Your task to perform on an android device: Go to notification settings Image 0: 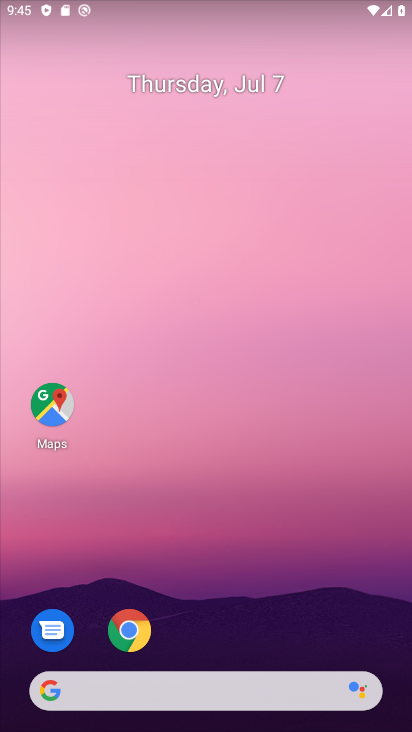
Step 0: press home button
Your task to perform on an android device: Go to notification settings Image 1: 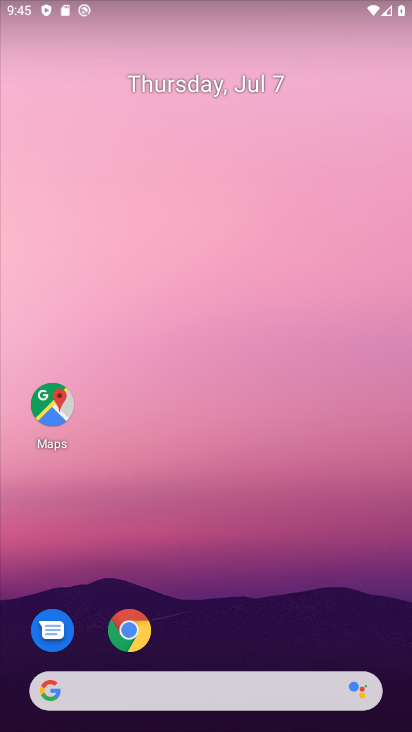
Step 1: drag from (205, 649) to (215, 57)
Your task to perform on an android device: Go to notification settings Image 2: 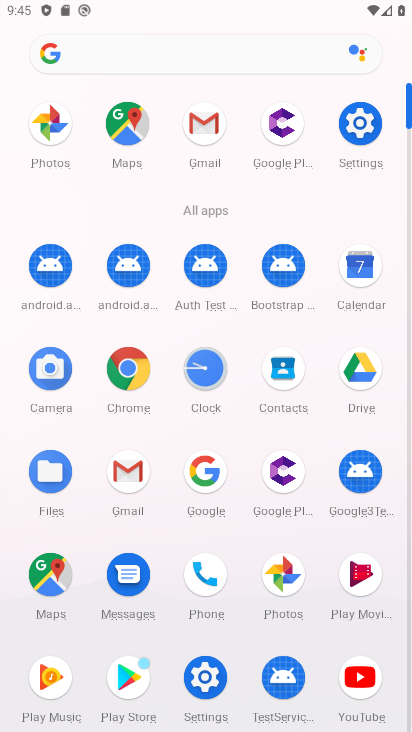
Step 2: click (355, 114)
Your task to perform on an android device: Go to notification settings Image 3: 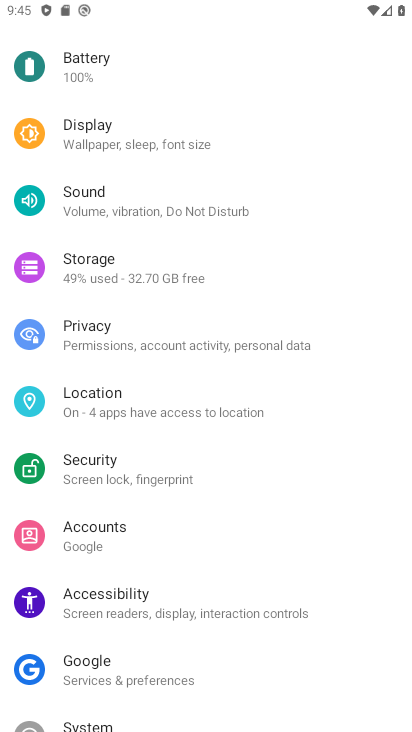
Step 3: drag from (116, 143) to (142, 586)
Your task to perform on an android device: Go to notification settings Image 4: 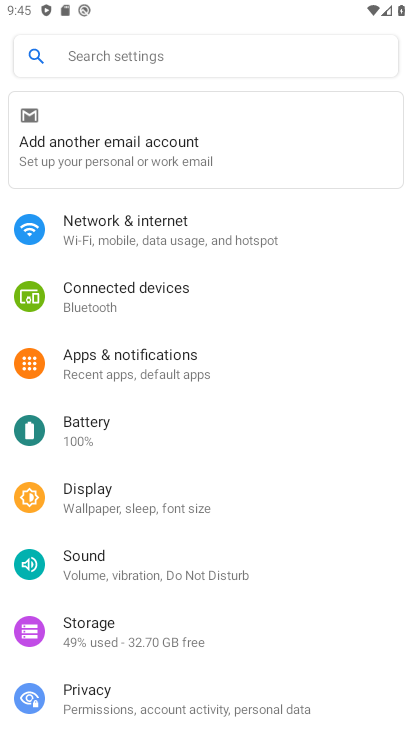
Step 4: click (191, 361)
Your task to perform on an android device: Go to notification settings Image 5: 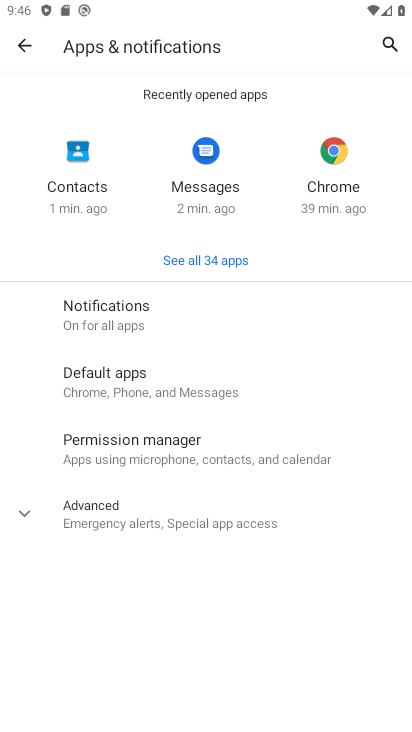
Step 5: click (111, 315)
Your task to perform on an android device: Go to notification settings Image 6: 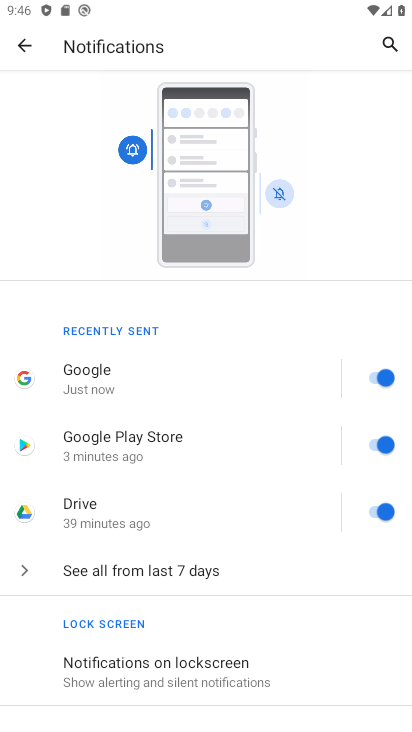
Step 6: drag from (192, 500) to (181, 238)
Your task to perform on an android device: Go to notification settings Image 7: 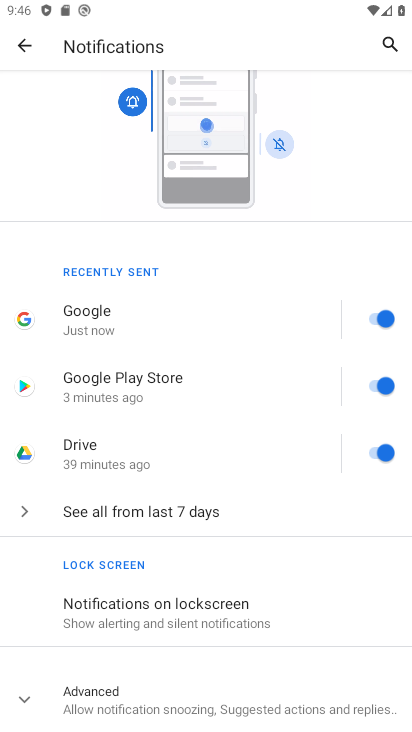
Step 7: click (27, 696)
Your task to perform on an android device: Go to notification settings Image 8: 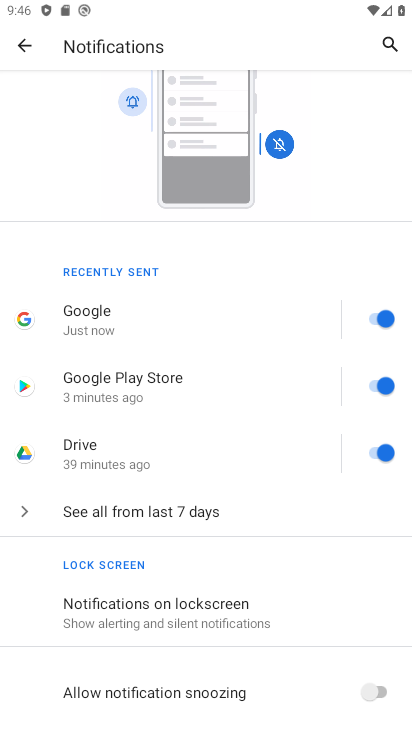
Step 8: task complete